Your task to perform on an android device: Go to notification settings Image 0: 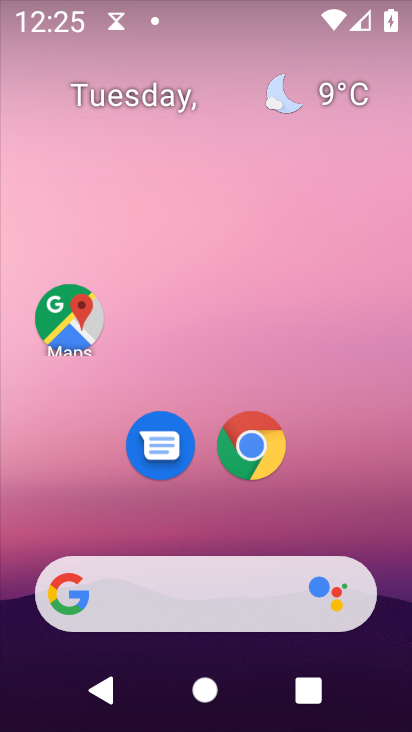
Step 0: drag from (310, 520) to (297, 9)
Your task to perform on an android device: Go to notification settings Image 1: 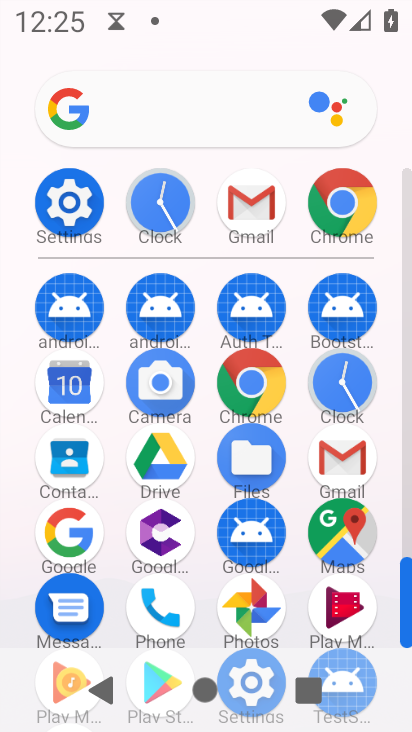
Step 1: drag from (292, 602) to (302, 246)
Your task to perform on an android device: Go to notification settings Image 2: 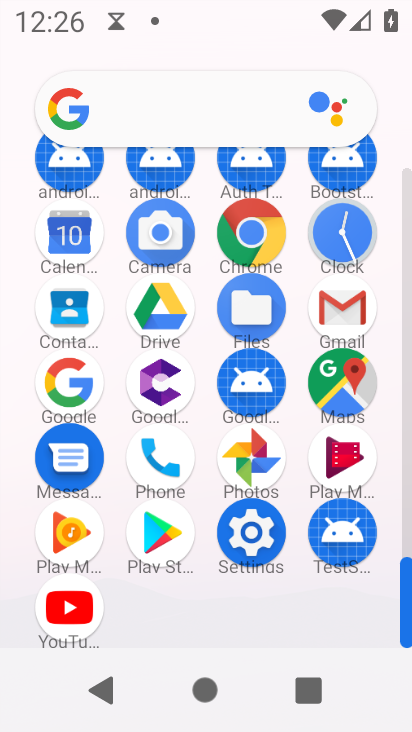
Step 2: click (254, 549)
Your task to perform on an android device: Go to notification settings Image 3: 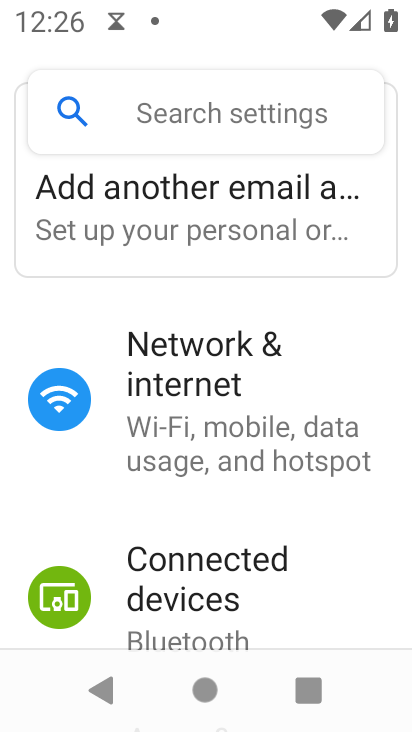
Step 3: drag from (254, 549) to (237, 95)
Your task to perform on an android device: Go to notification settings Image 4: 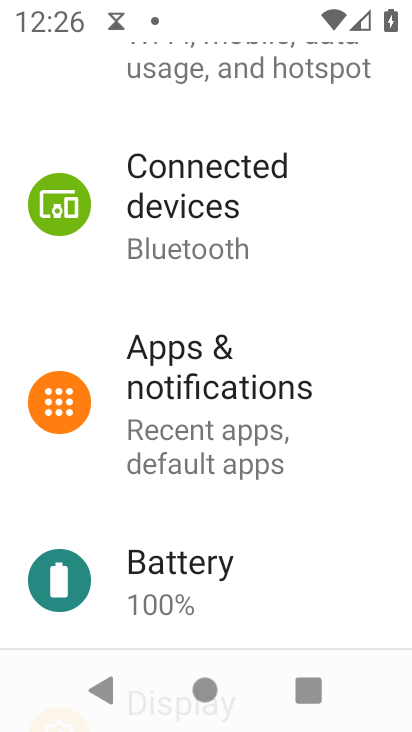
Step 4: click (285, 450)
Your task to perform on an android device: Go to notification settings Image 5: 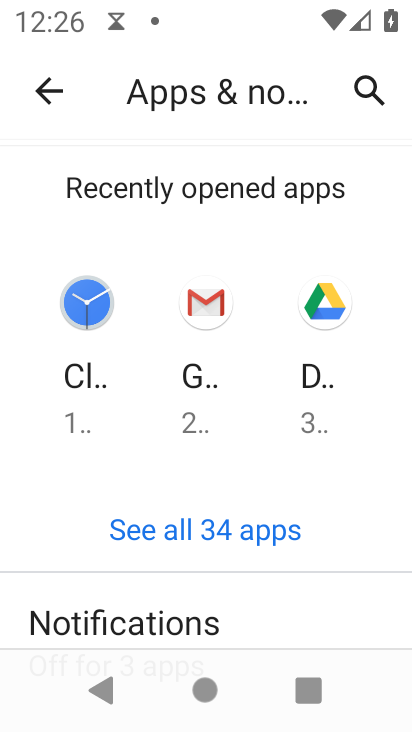
Step 5: drag from (226, 604) to (257, 103)
Your task to perform on an android device: Go to notification settings Image 6: 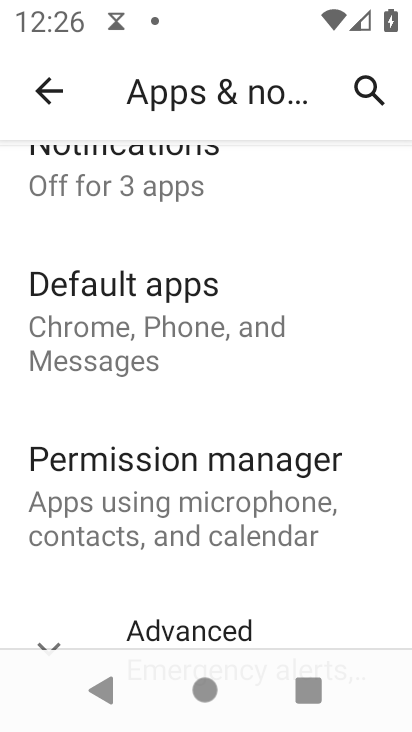
Step 6: click (199, 183)
Your task to perform on an android device: Go to notification settings Image 7: 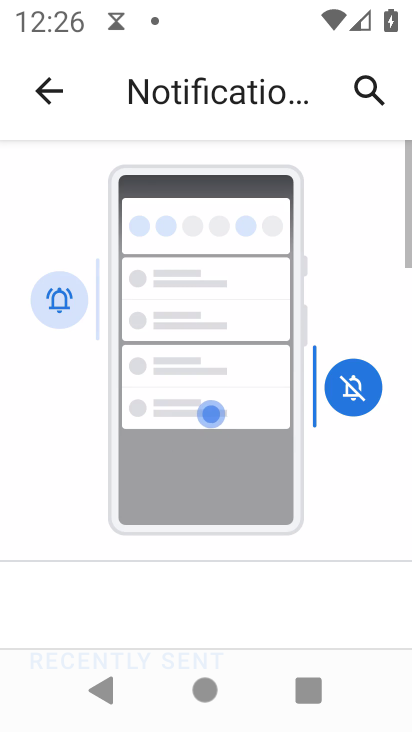
Step 7: task complete